Your task to perform on an android device: open app "Upside-Cash back on gas & food" (install if not already installed) Image 0: 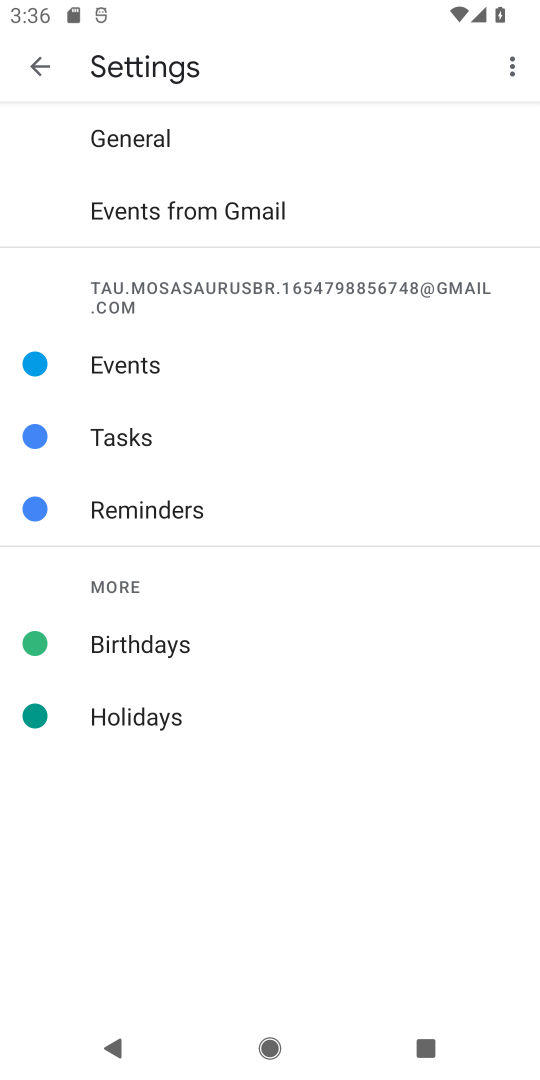
Step 0: press home button
Your task to perform on an android device: open app "Upside-Cash back on gas & food" (install if not already installed) Image 1: 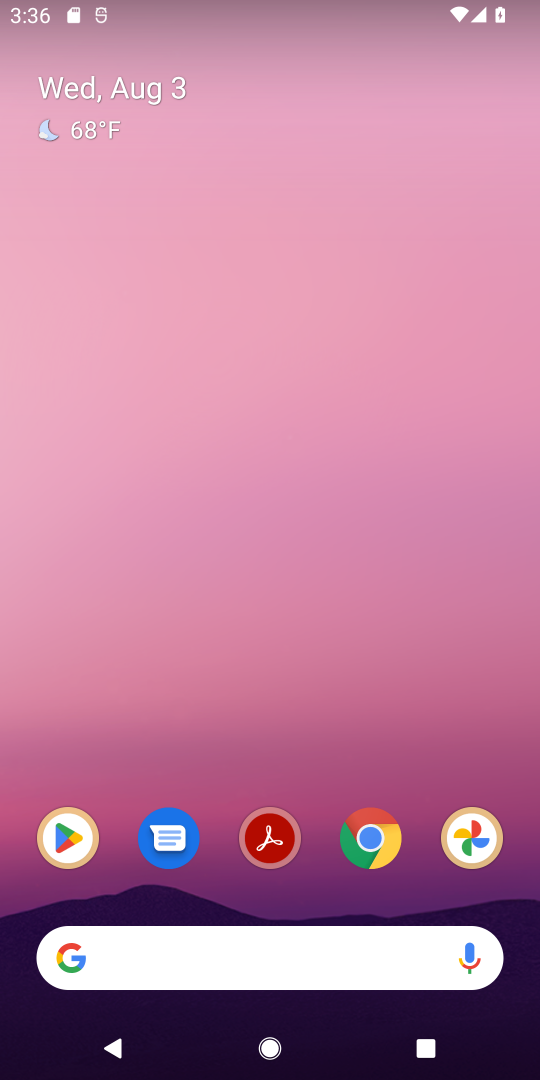
Step 1: click (50, 839)
Your task to perform on an android device: open app "Upside-Cash back on gas & food" (install if not already installed) Image 2: 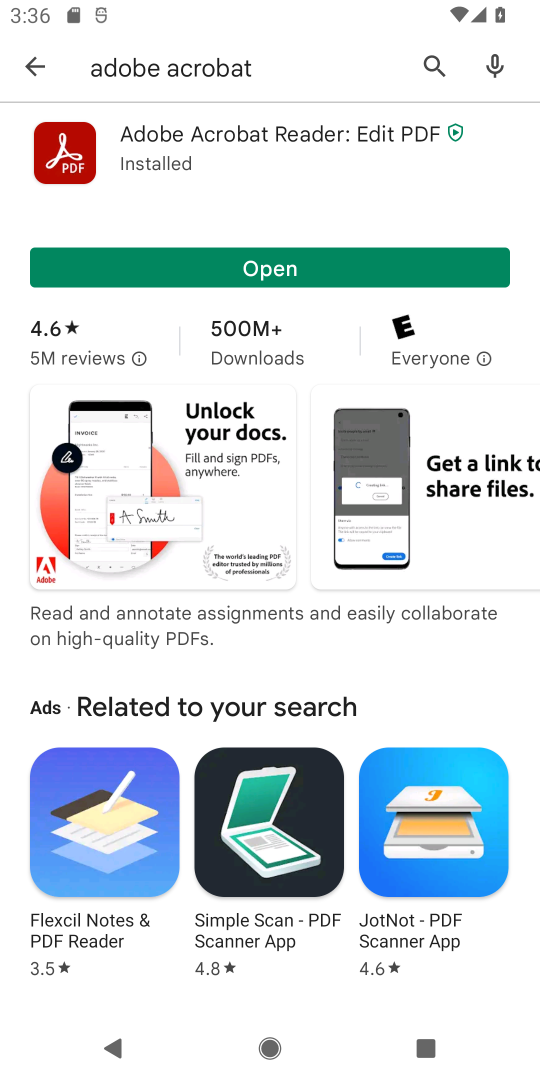
Step 2: click (438, 67)
Your task to perform on an android device: open app "Upside-Cash back on gas & food" (install if not already installed) Image 3: 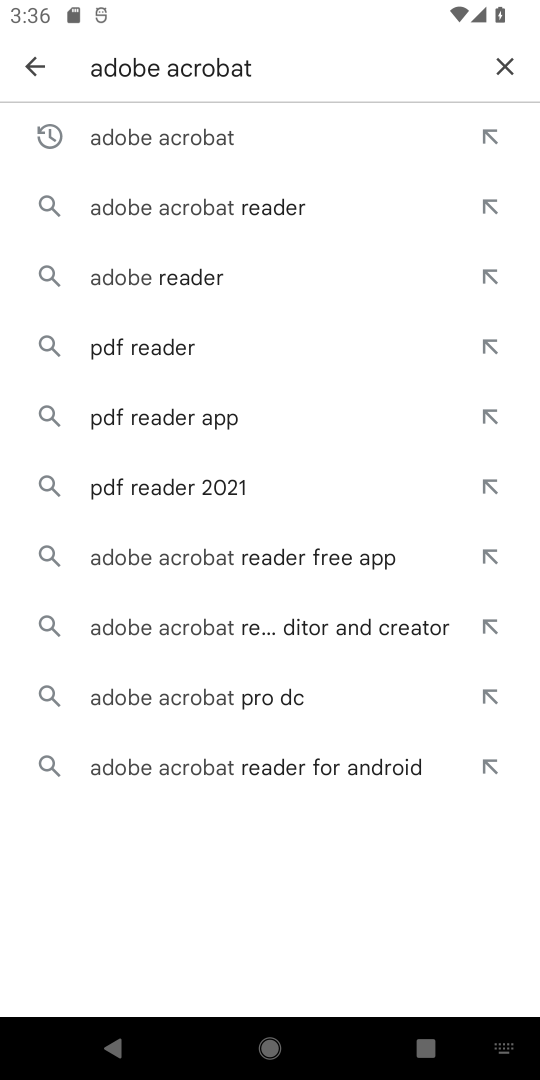
Step 3: click (511, 78)
Your task to perform on an android device: open app "Upside-Cash back on gas & food" (install if not already installed) Image 4: 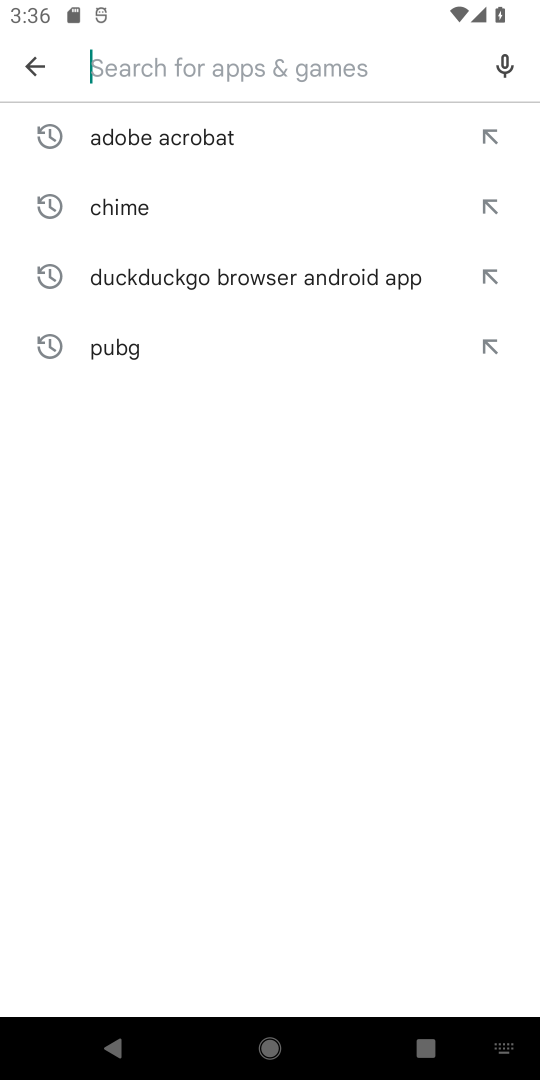
Step 4: type "upside "
Your task to perform on an android device: open app "Upside-Cash back on gas & food" (install if not already installed) Image 5: 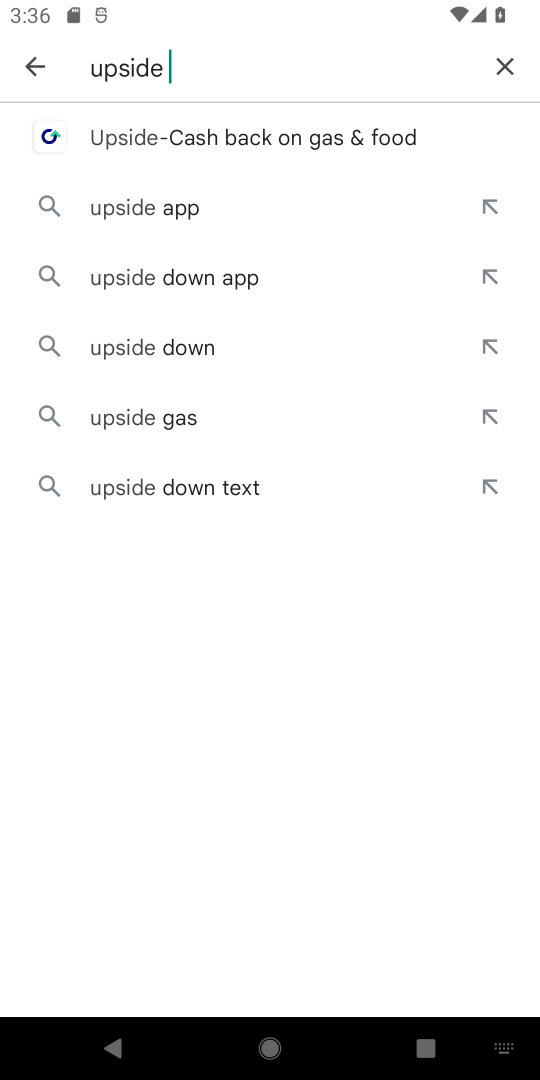
Step 5: click (254, 139)
Your task to perform on an android device: open app "Upside-Cash back on gas & food" (install if not already installed) Image 6: 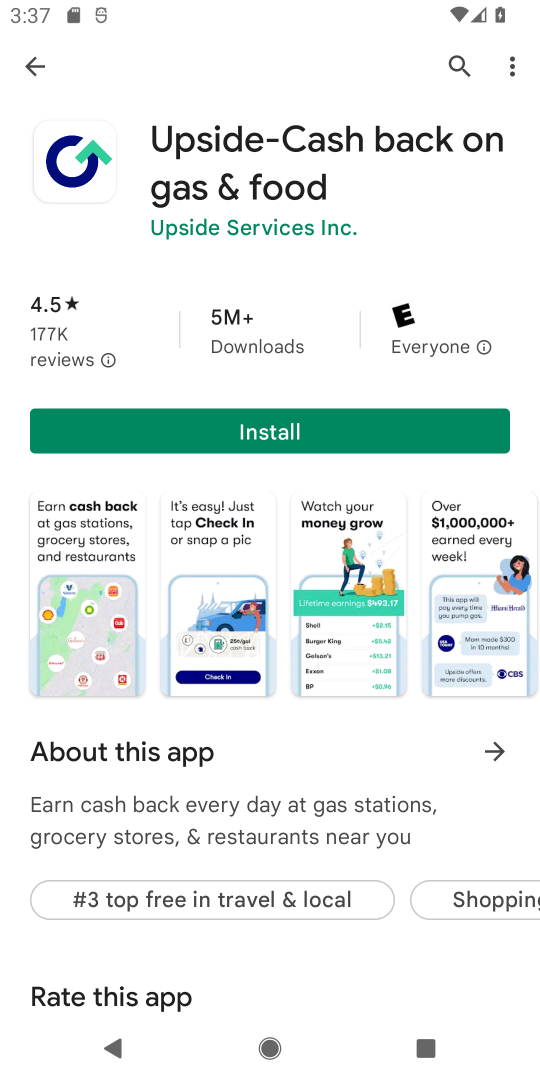
Step 6: click (182, 431)
Your task to perform on an android device: open app "Upside-Cash back on gas & food" (install if not already installed) Image 7: 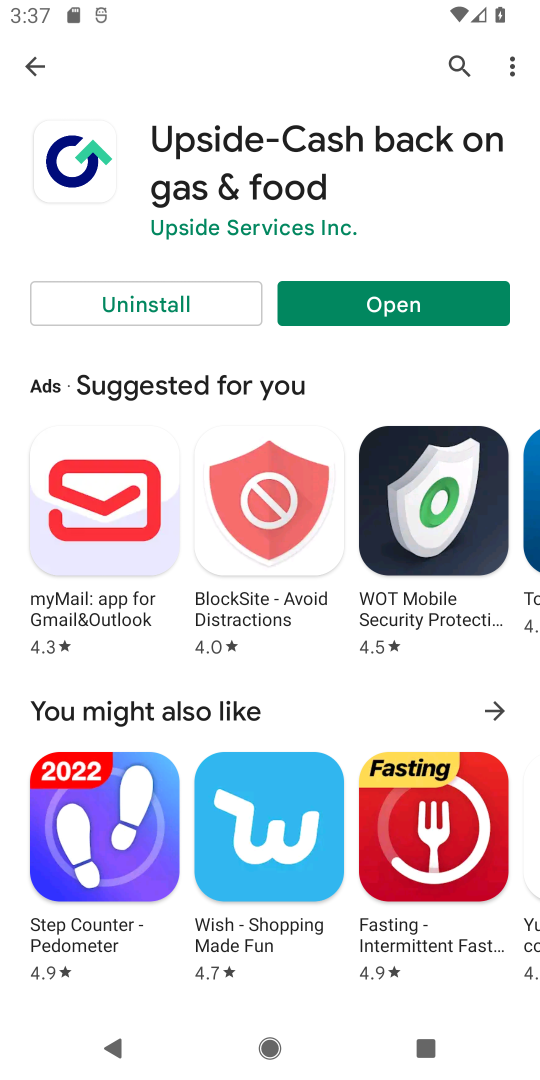
Step 7: click (408, 302)
Your task to perform on an android device: open app "Upside-Cash back on gas & food" (install if not already installed) Image 8: 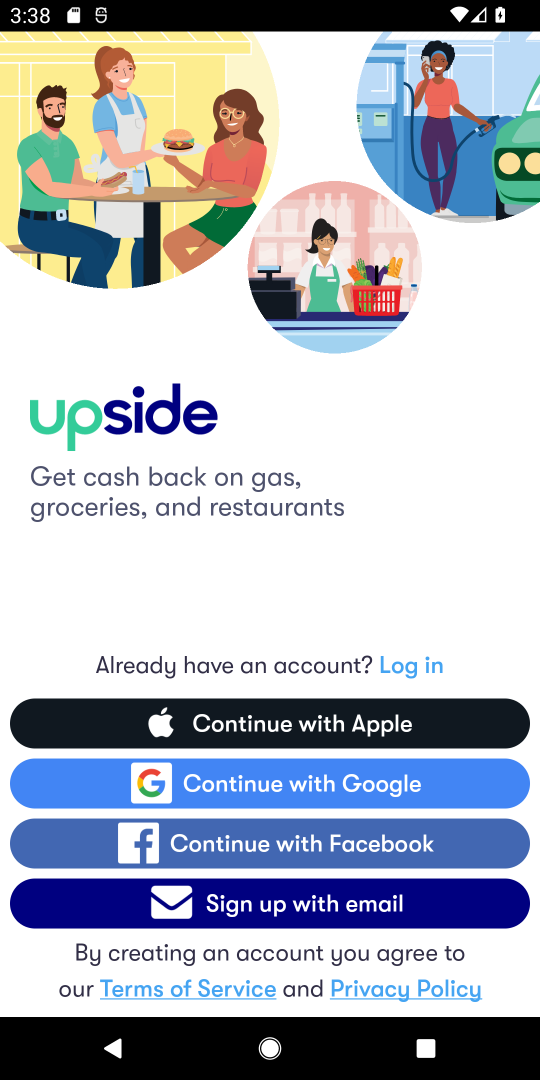
Step 8: task complete